Your task to perform on an android device: turn on priority inbox in the gmail app Image 0: 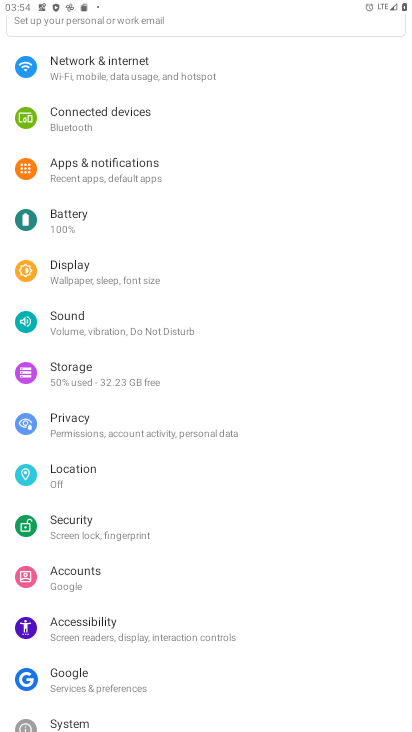
Step 0: press home button
Your task to perform on an android device: turn on priority inbox in the gmail app Image 1: 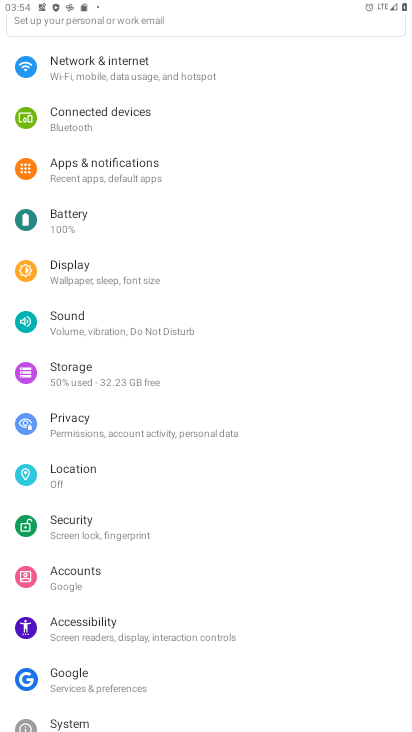
Step 1: press home button
Your task to perform on an android device: turn on priority inbox in the gmail app Image 2: 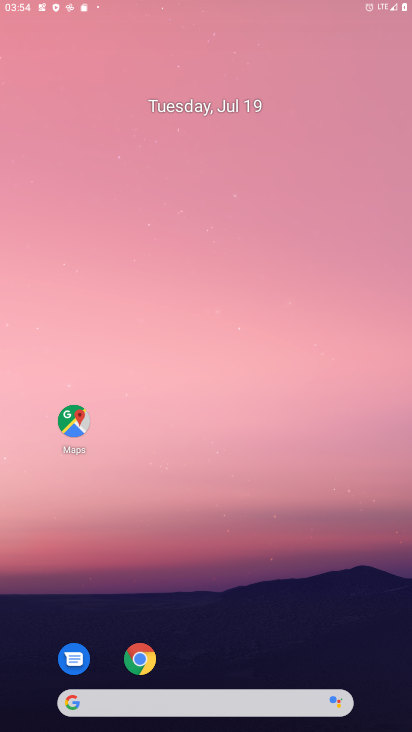
Step 2: press home button
Your task to perform on an android device: turn on priority inbox in the gmail app Image 3: 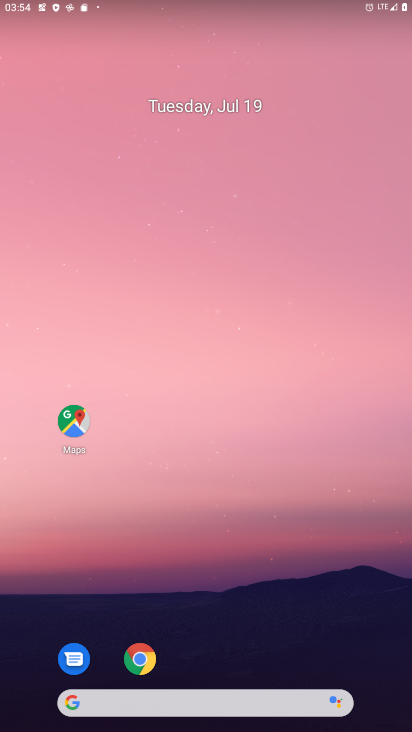
Step 3: drag from (210, 672) to (176, 81)
Your task to perform on an android device: turn on priority inbox in the gmail app Image 4: 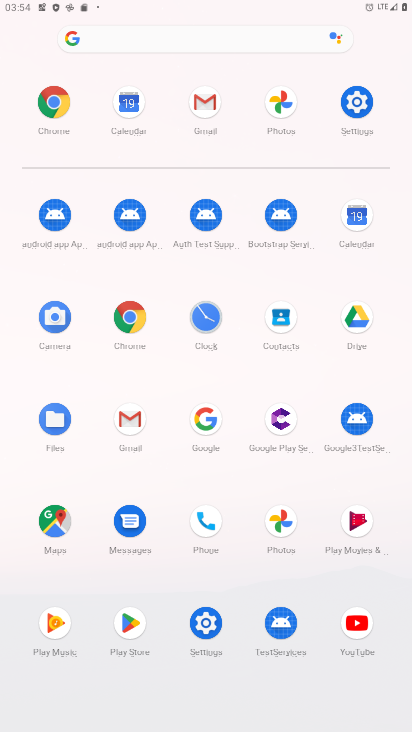
Step 4: click (133, 401)
Your task to perform on an android device: turn on priority inbox in the gmail app Image 5: 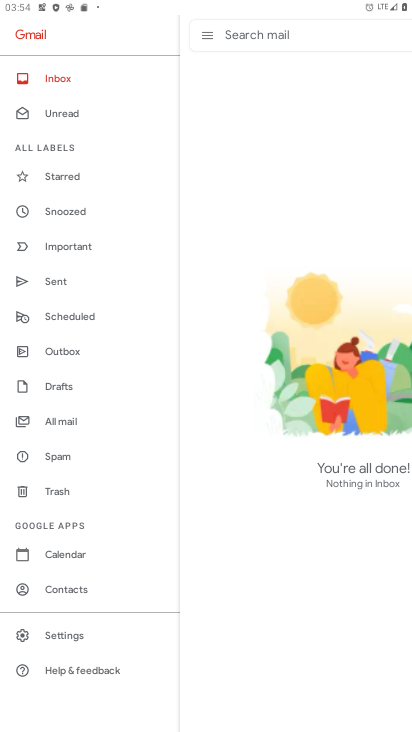
Step 5: click (42, 636)
Your task to perform on an android device: turn on priority inbox in the gmail app Image 6: 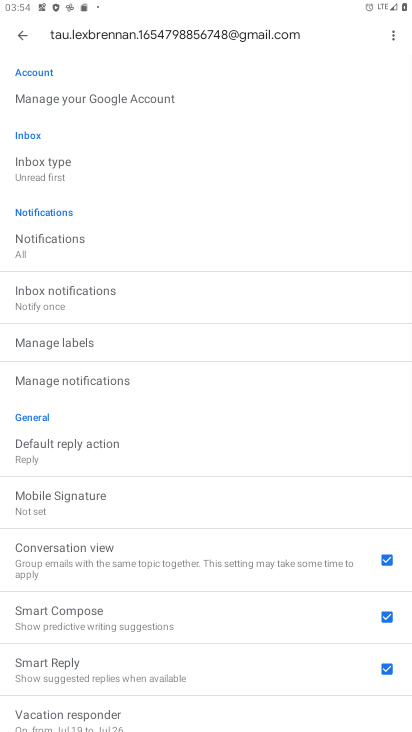
Step 6: click (36, 153)
Your task to perform on an android device: turn on priority inbox in the gmail app Image 7: 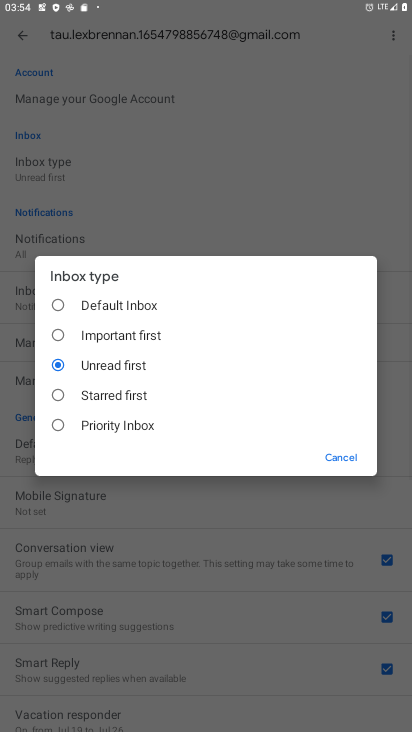
Step 7: click (45, 426)
Your task to perform on an android device: turn on priority inbox in the gmail app Image 8: 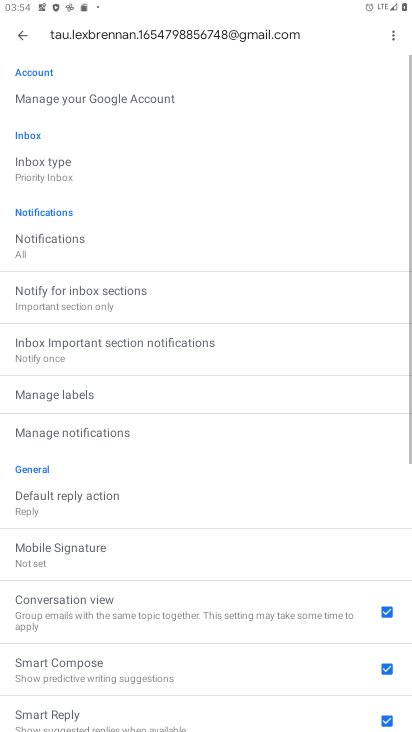
Step 8: task complete